Your task to perform on an android device: Open Google Maps Image 0: 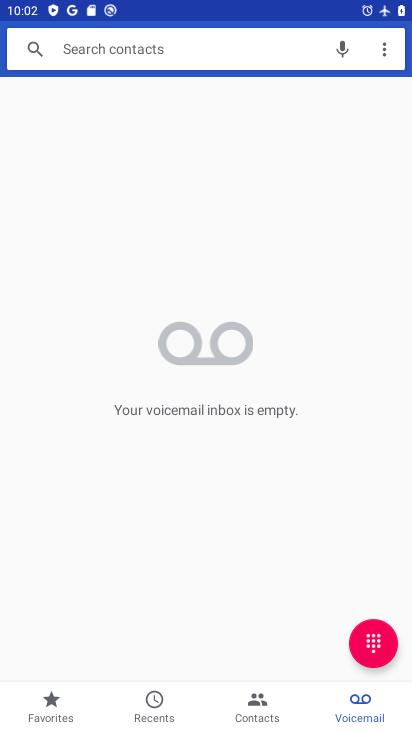
Step 0: press home button
Your task to perform on an android device: Open Google Maps Image 1: 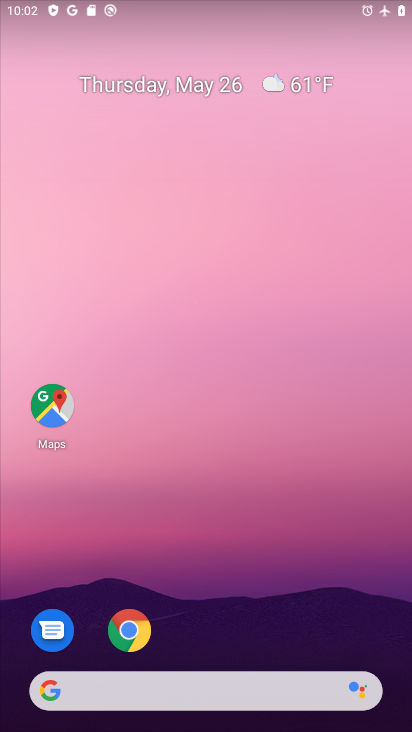
Step 1: drag from (202, 642) to (196, 108)
Your task to perform on an android device: Open Google Maps Image 2: 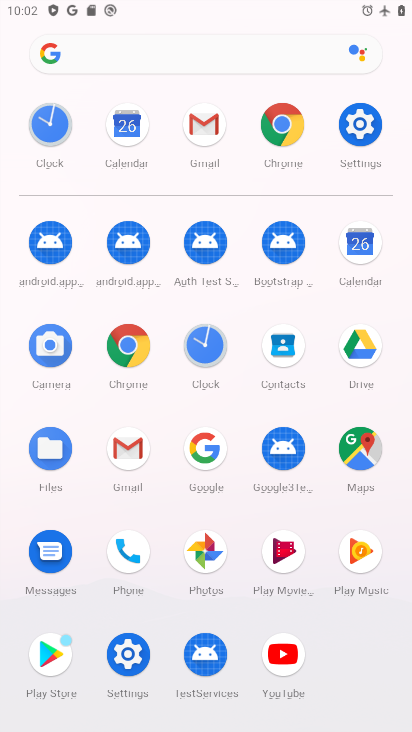
Step 2: click (358, 437)
Your task to perform on an android device: Open Google Maps Image 3: 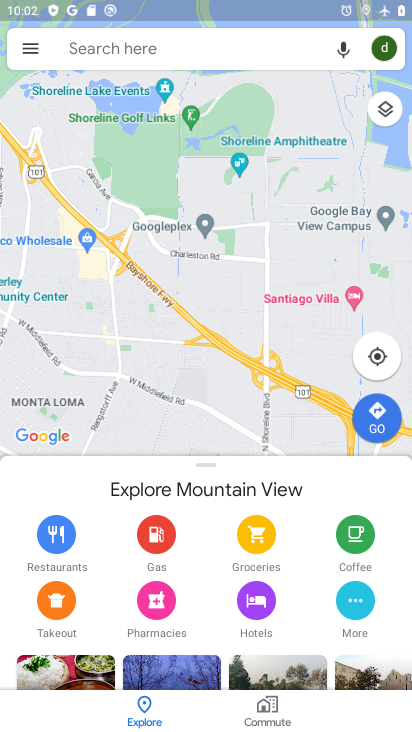
Step 3: task complete